Your task to perform on an android device: Open the map Image 0: 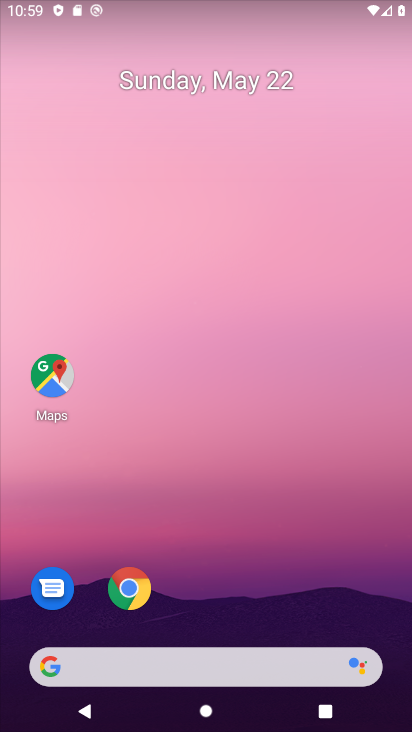
Step 0: click (58, 378)
Your task to perform on an android device: Open the map Image 1: 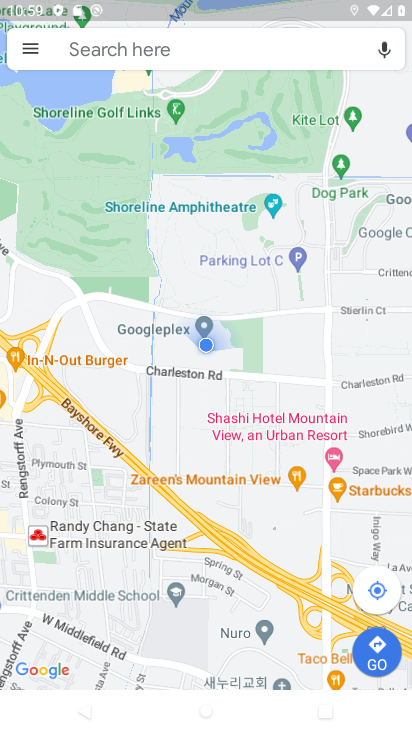
Step 1: task complete